Your task to perform on an android device: Go to accessibility settings Image 0: 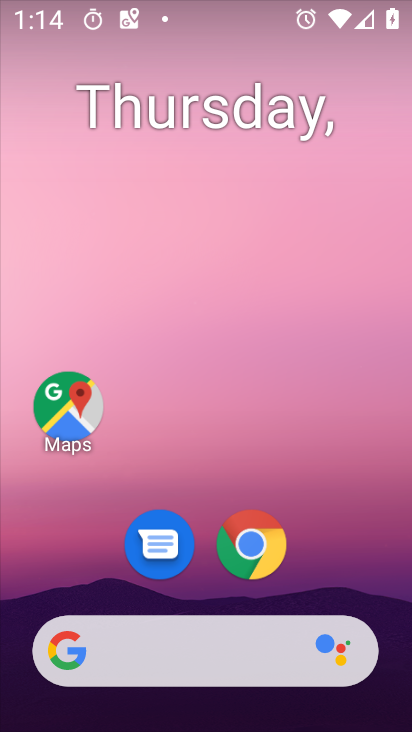
Step 0: drag from (83, 632) to (409, 204)
Your task to perform on an android device: Go to accessibility settings Image 1: 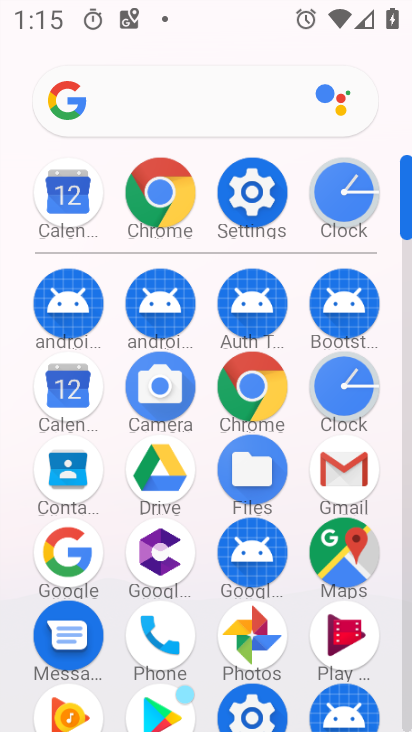
Step 1: click (248, 176)
Your task to perform on an android device: Go to accessibility settings Image 2: 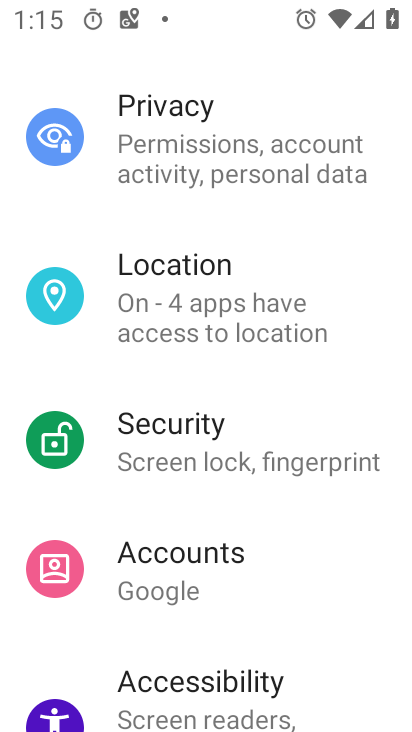
Step 2: click (117, 687)
Your task to perform on an android device: Go to accessibility settings Image 3: 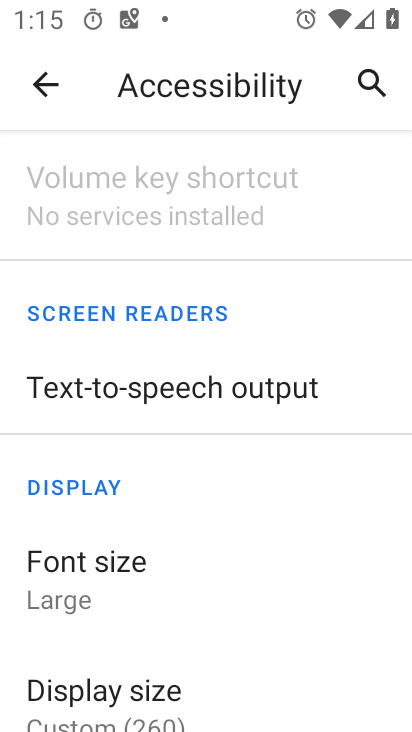
Step 3: task complete